Your task to perform on an android device: Show me popular games on the Play Store Image 0: 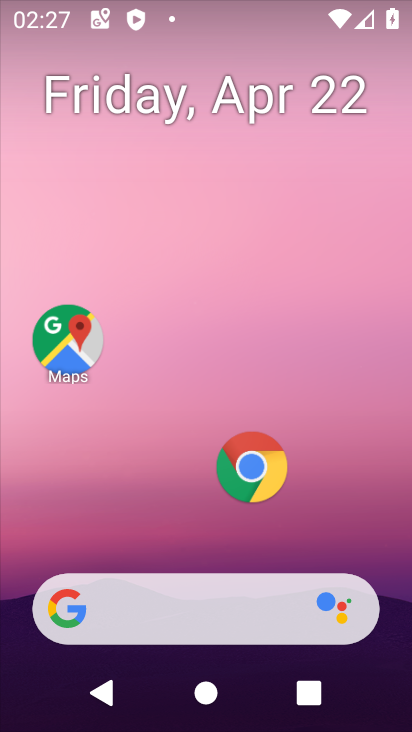
Step 0: drag from (220, 547) to (233, 183)
Your task to perform on an android device: Show me popular games on the Play Store Image 1: 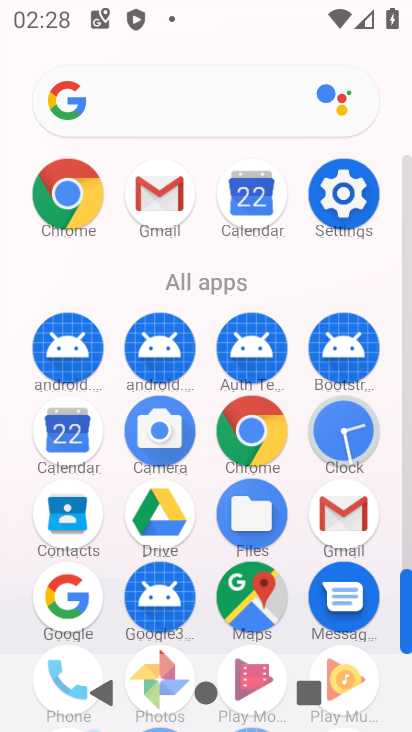
Step 1: drag from (284, 637) to (304, 513)
Your task to perform on an android device: Show me popular games on the Play Store Image 2: 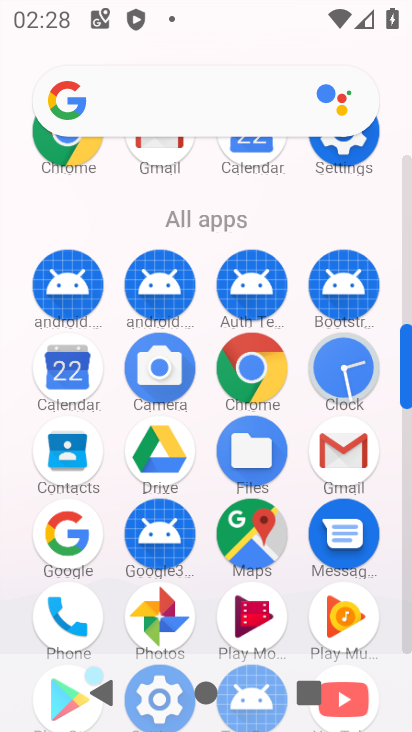
Step 2: click (68, 696)
Your task to perform on an android device: Show me popular games on the Play Store Image 3: 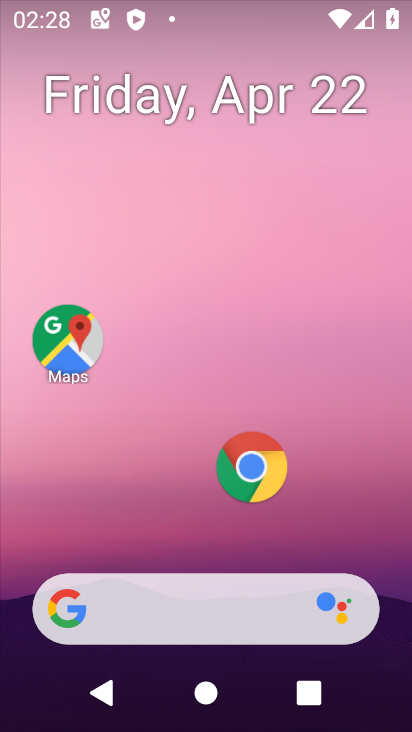
Step 3: drag from (199, 533) to (224, 223)
Your task to perform on an android device: Show me popular games on the Play Store Image 4: 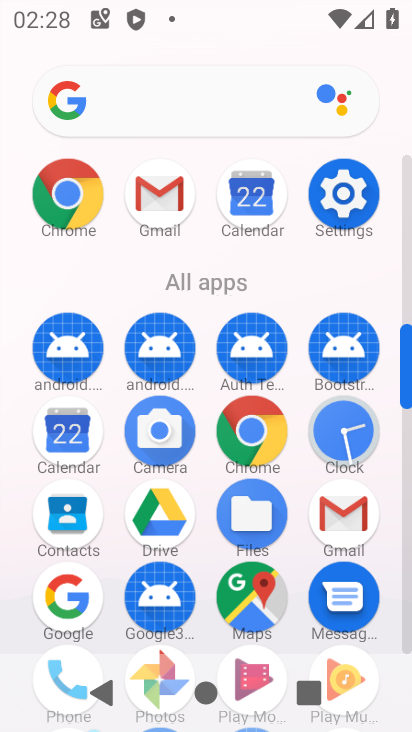
Step 4: drag from (210, 632) to (257, 286)
Your task to perform on an android device: Show me popular games on the Play Store Image 5: 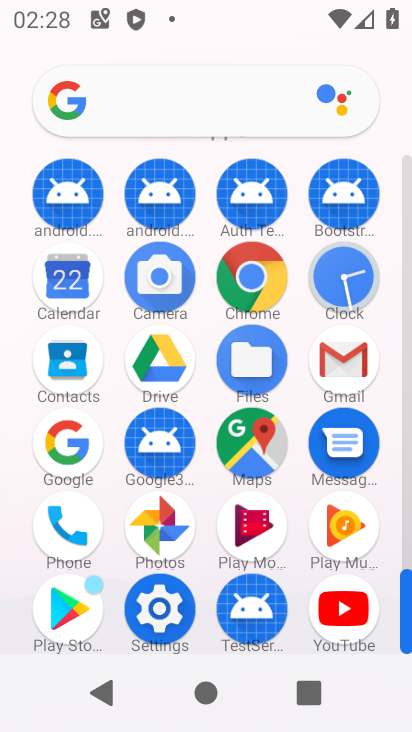
Step 5: click (75, 603)
Your task to perform on an android device: Show me popular games on the Play Store Image 6: 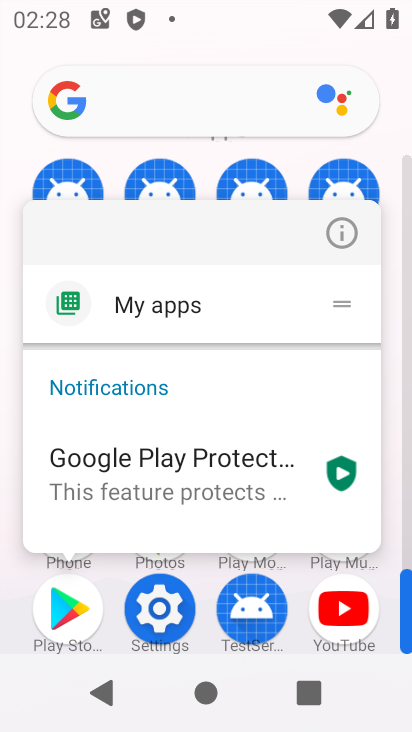
Step 6: click (349, 227)
Your task to perform on an android device: Show me popular games on the Play Store Image 7: 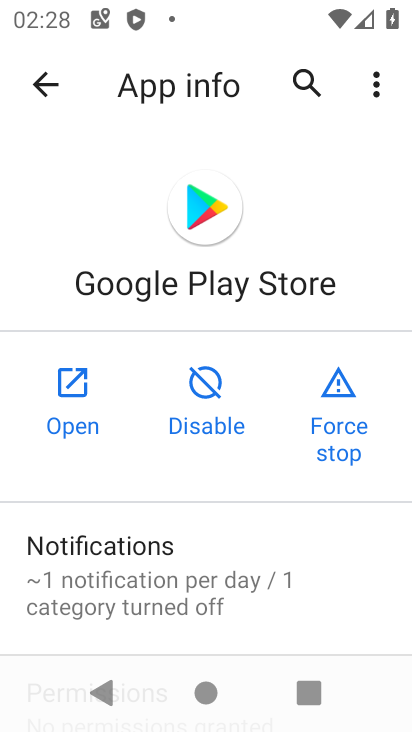
Step 7: click (78, 402)
Your task to perform on an android device: Show me popular games on the Play Store Image 8: 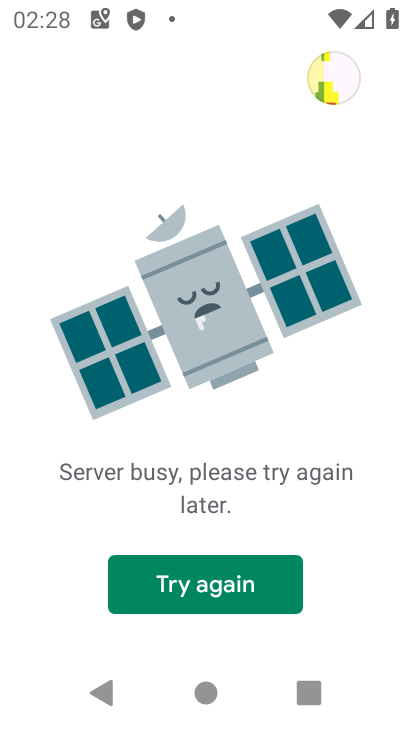
Step 8: task complete